Your task to perform on an android device: Open the map Image 0: 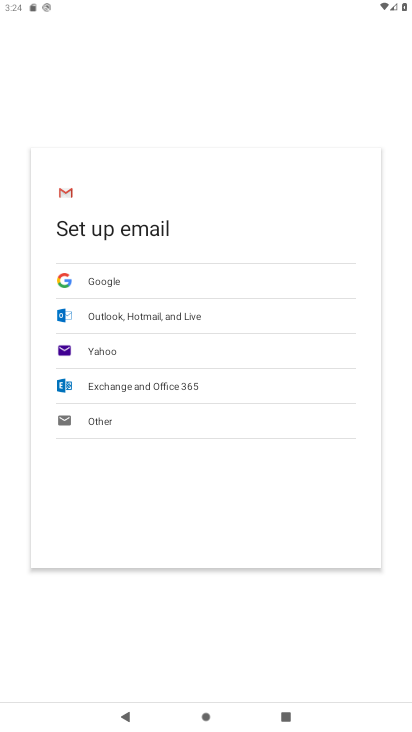
Step 0: press home button
Your task to perform on an android device: Open the map Image 1: 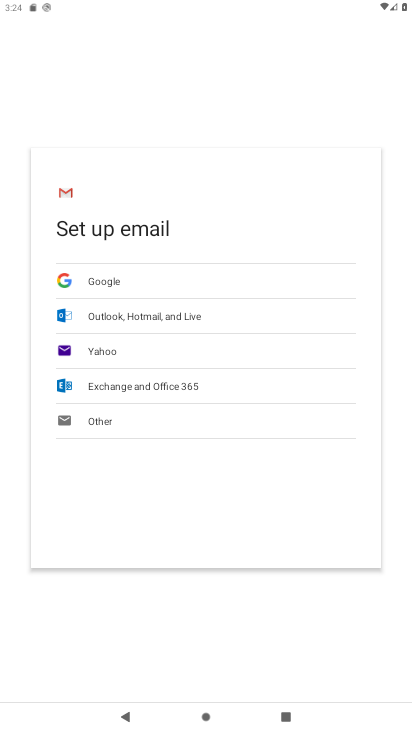
Step 1: press home button
Your task to perform on an android device: Open the map Image 2: 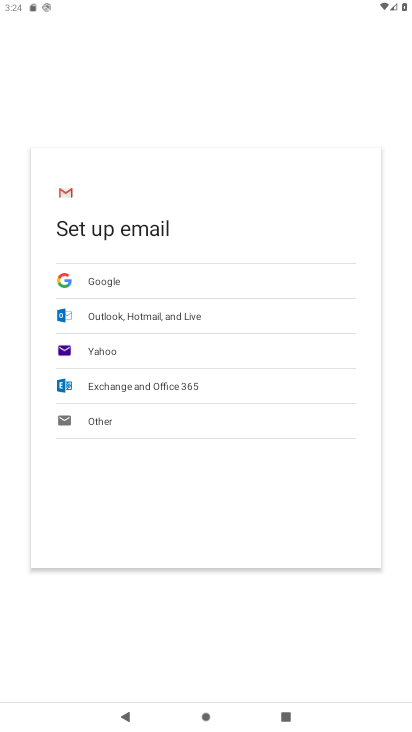
Step 2: click (138, 7)
Your task to perform on an android device: Open the map Image 3: 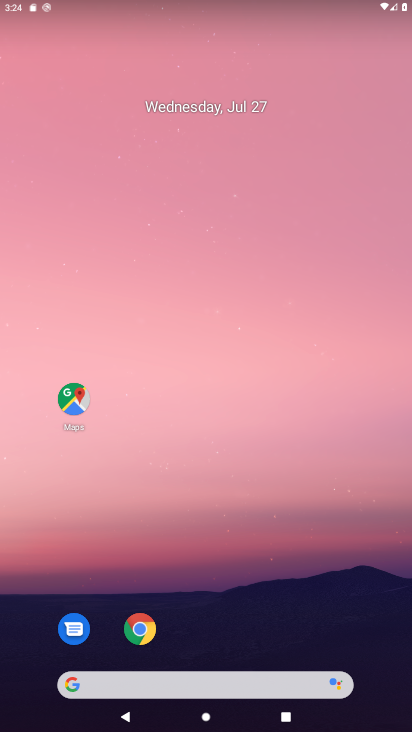
Step 3: drag from (211, 540) to (245, 691)
Your task to perform on an android device: Open the map Image 4: 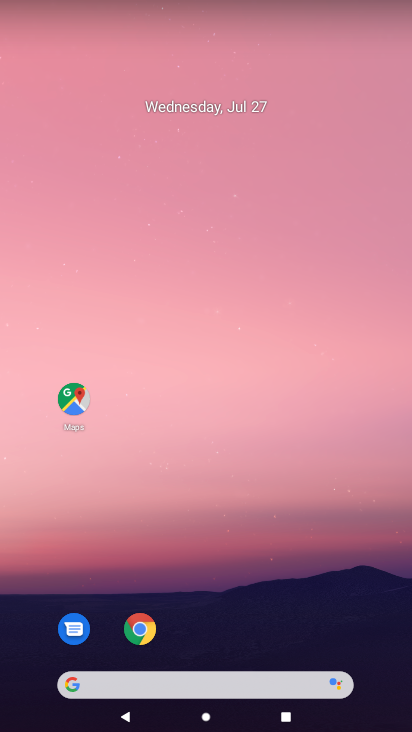
Step 4: drag from (278, 494) to (278, 223)
Your task to perform on an android device: Open the map Image 5: 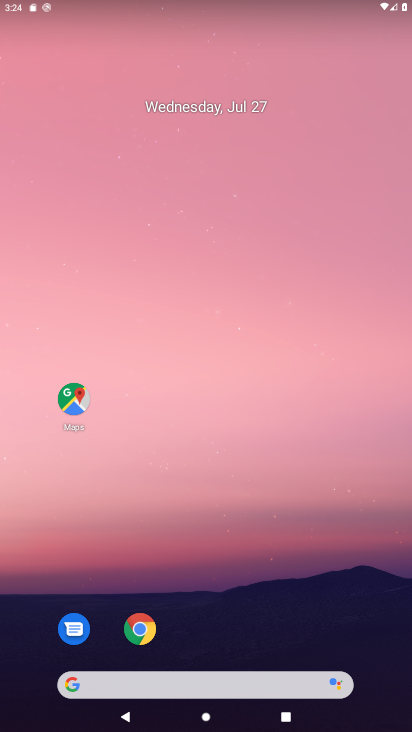
Step 5: click (78, 415)
Your task to perform on an android device: Open the map Image 6: 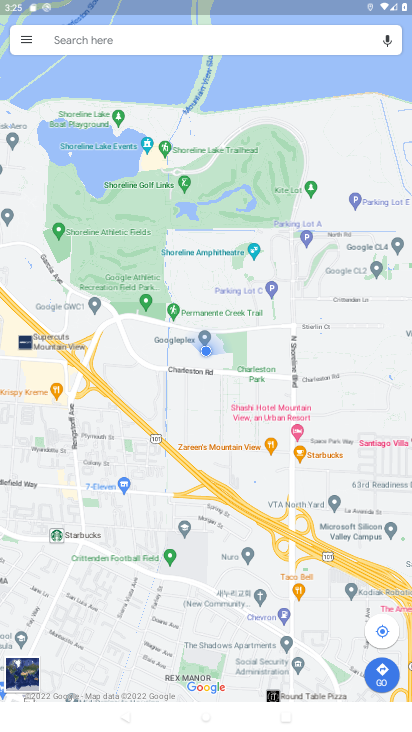
Step 6: task complete